Your task to perform on an android device: Open Google Maps Image 0: 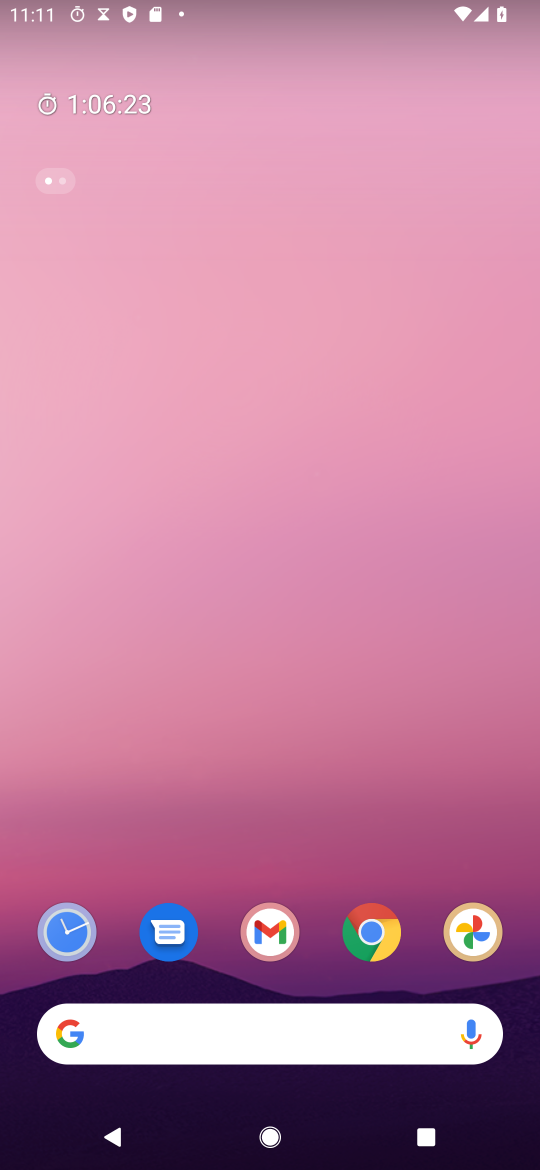
Step 0: drag from (413, 868) to (366, 121)
Your task to perform on an android device: Open Google Maps Image 1: 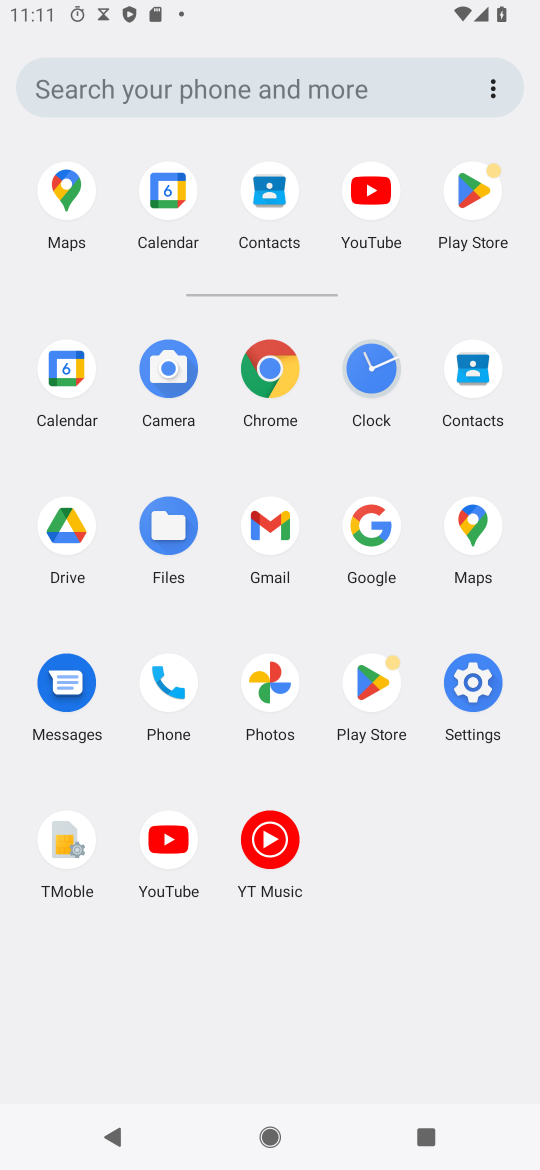
Step 1: click (48, 178)
Your task to perform on an android device: Open Google Maps Image 2: 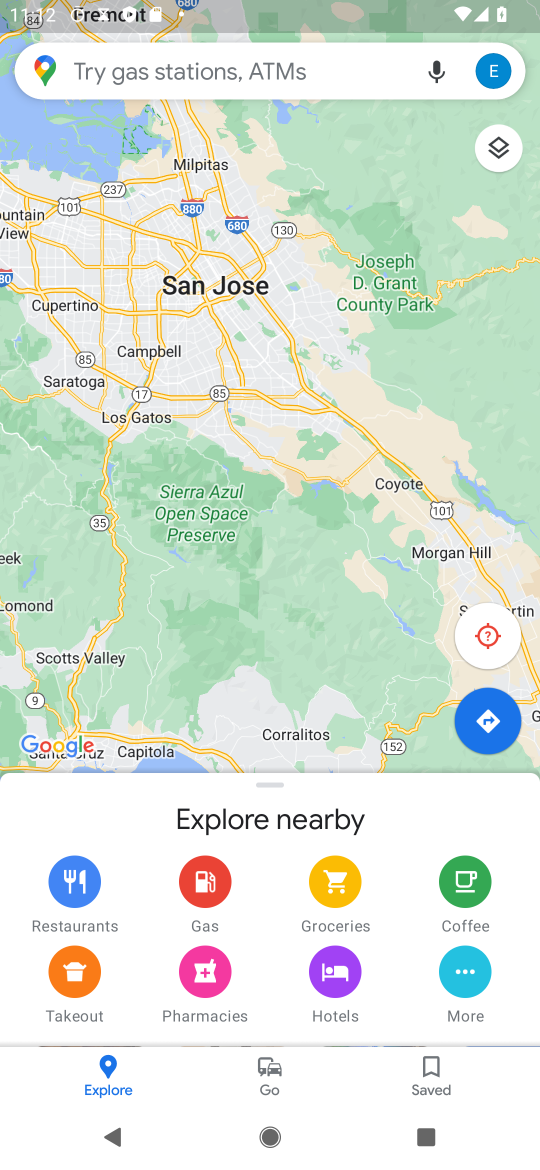
Step 2: task complete